Your task to perform on an android device: empty trash in google photos Image 0: 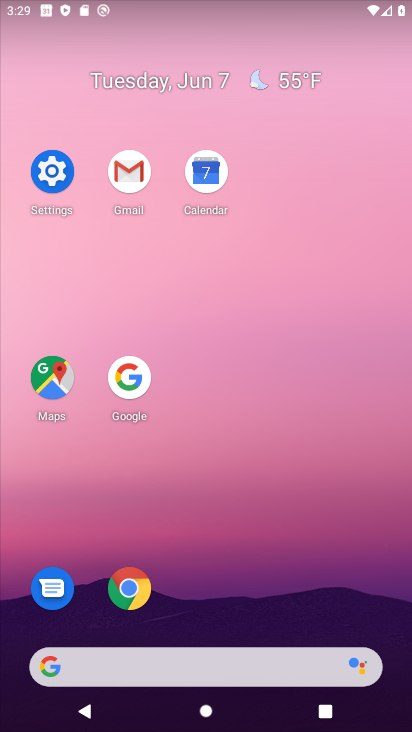
Step 0: drag from (291, 610) to (252, 152)
Your task to perform on an android device: empty trash in google photos Image 1: 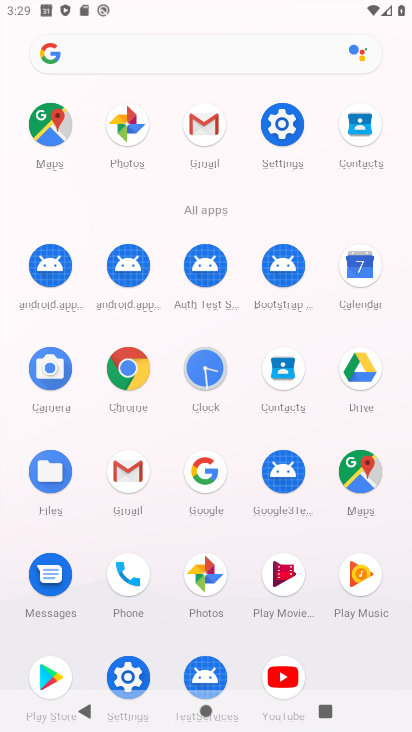
Step 1: click (138, 130)
Your task to perform on an android device: empty trash in google photos Image 2: 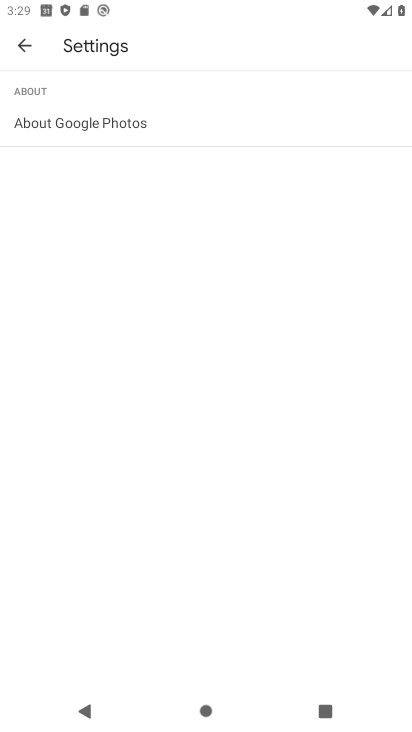
Step 2: click (27, 52)
Your task to perform on an android device: empty trash in google photos Image 3: 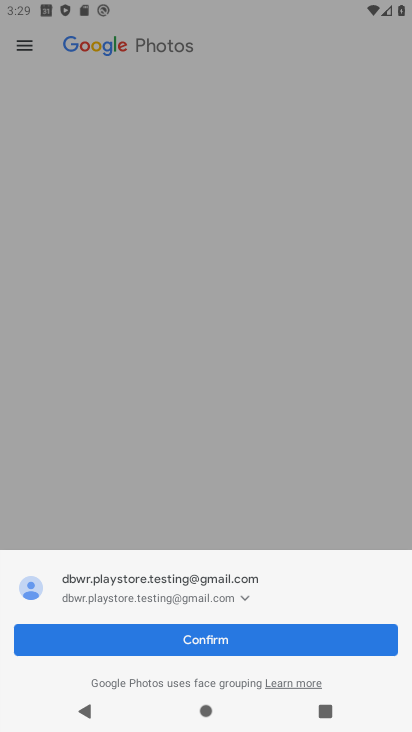
Step 3: click (29, 55)
Your task to perform on an android device: empty trash in google photos Image 4: 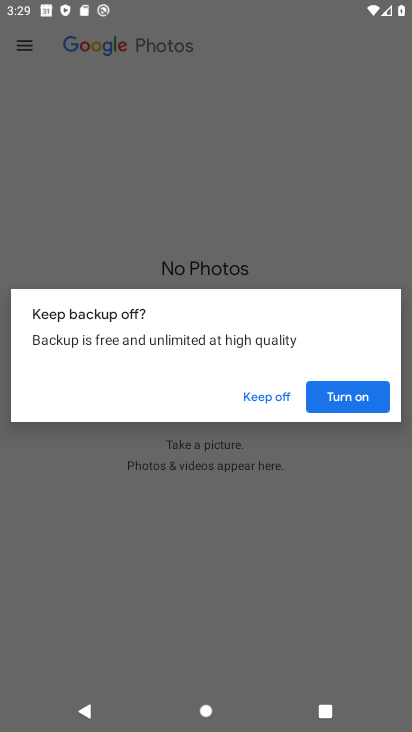
Step 4: click (30, 52)
Your task to perform on an android device: empty trash in google photos Image 5: 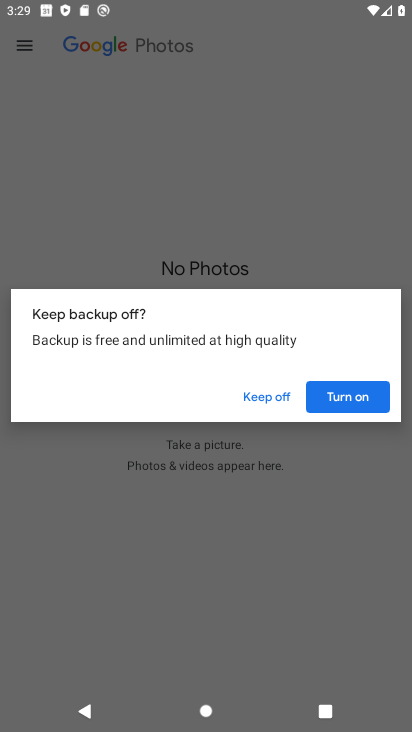
Step 5: click (352, 393)
Your task to perform on an android device: empty trash in google photos Image 6: 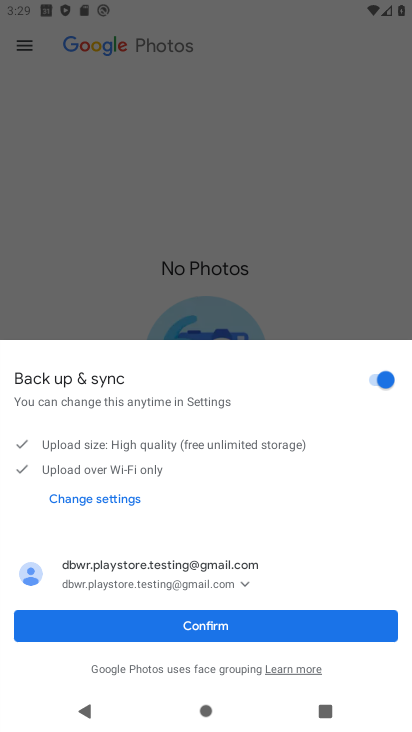
Step 6: click (23, 36)
Your task to perform on an android device: empty trash in google photos Image 7: 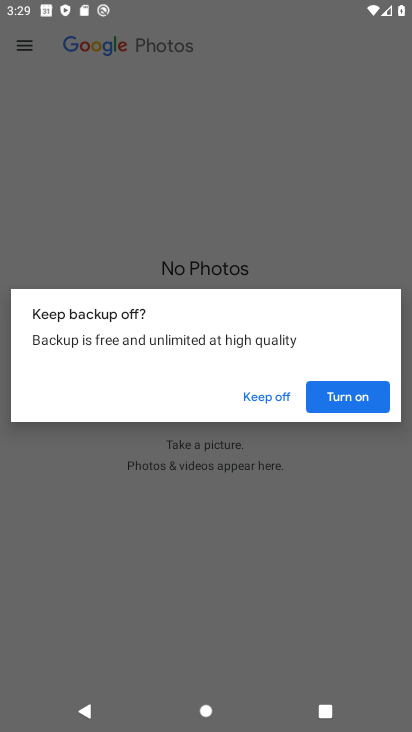
Step 7: click (379, 403)
Your task to perform on an android device: empty trash in google photos Image 8: 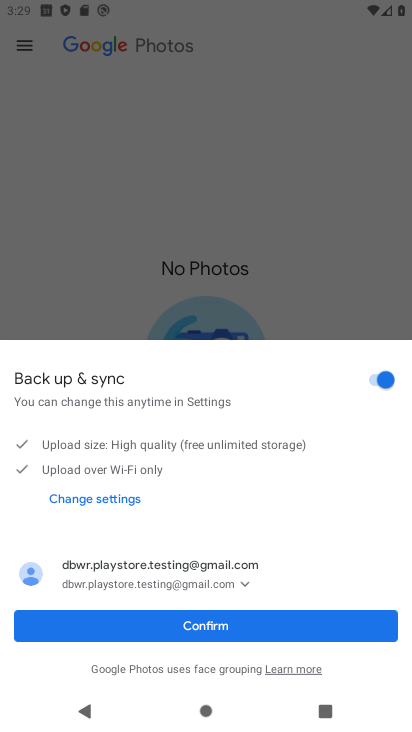
Step 8: click (286, 629)
Your task to perform on an android device: empty trash in google photos Image 9: 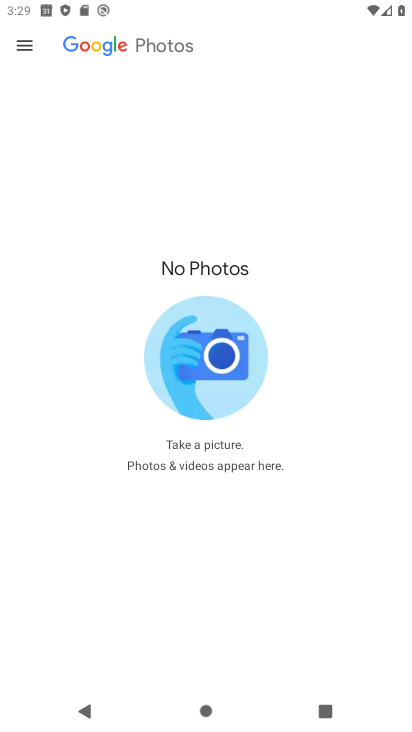
Step 9: click (37, 49)
Your task to perform on an android device: empty trash in google photos Image 10: 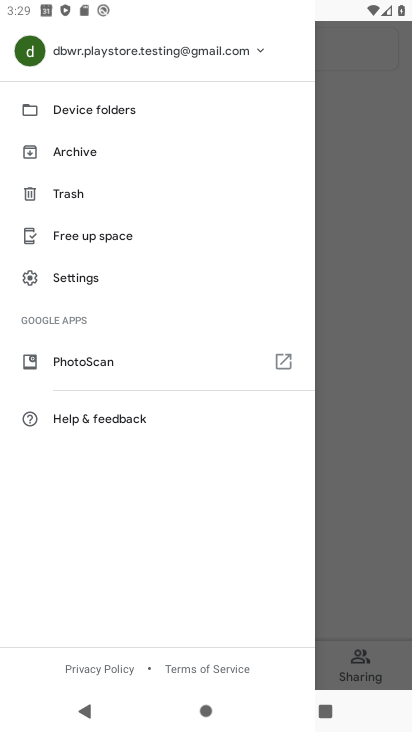
Step 10: click (96, 193)
Your task to perform on an android device: empty trash in google photos Image 11: 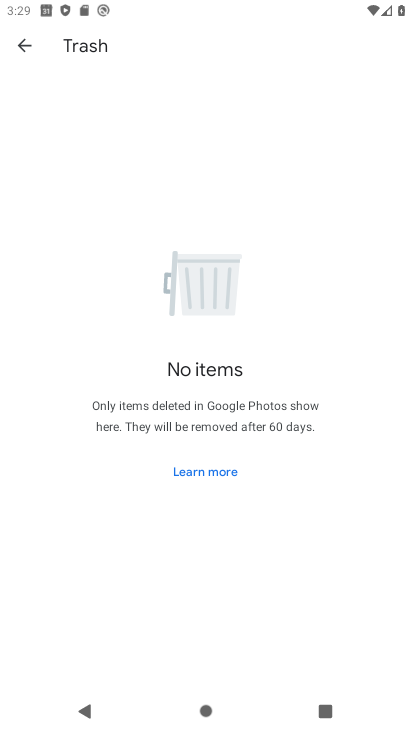
Step 11: task complete